Your task to perform on an android device: add a contact in the contacts app Image 0: 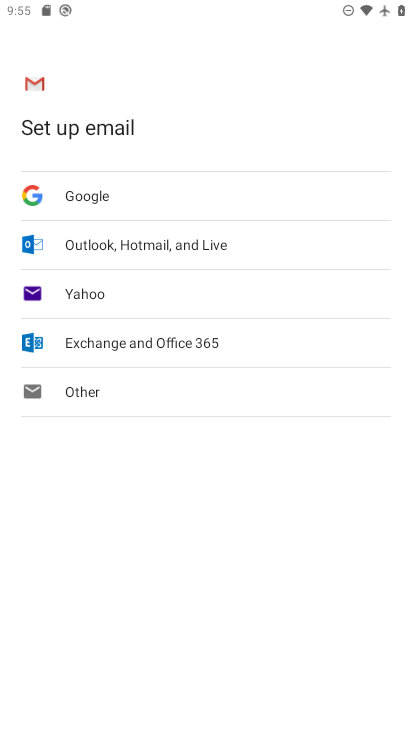
Step 0: press home button
Your task to perform on an android device: add a contact in the contacts app Image 1: 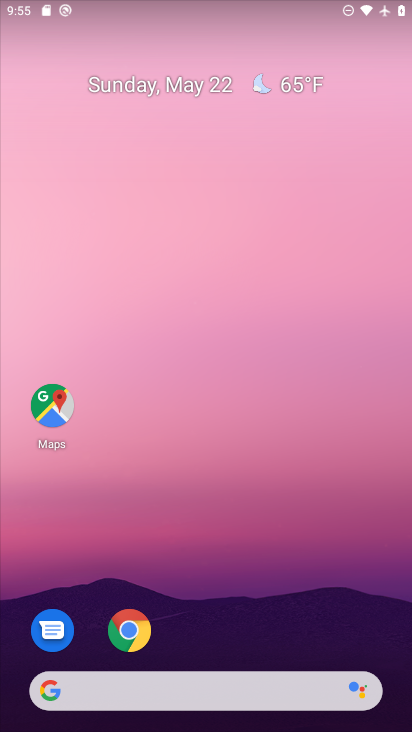
Step 1: drag from (167, 697) to (302, 289)
Your task to perform on an android device: add a contact in the contacts app Image 2: 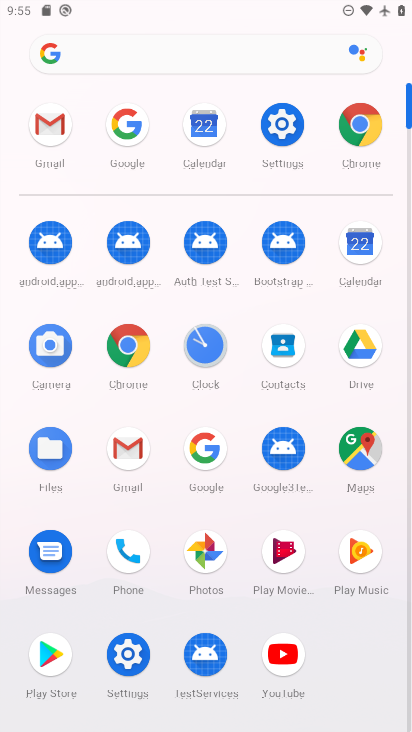
Step 2: click (285, 338)
Your task to perform on an android device: add a contact in the contacts app Image 3: 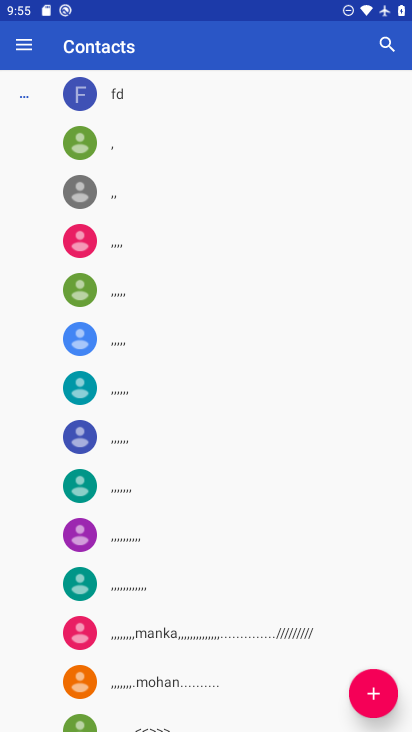
Step 3: click (375, 696)
Your task to perform on an android device: add a contact in the contacts app Image 4: 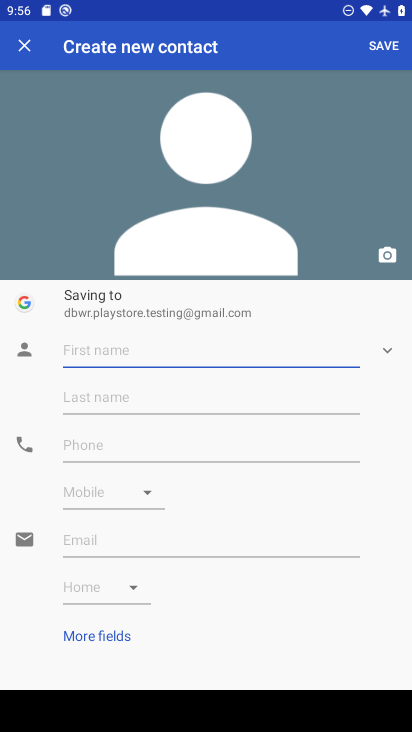
Step 4: type "ytghfds"
Your task to perform on an android device: add a contact in the contacts app Image 5: 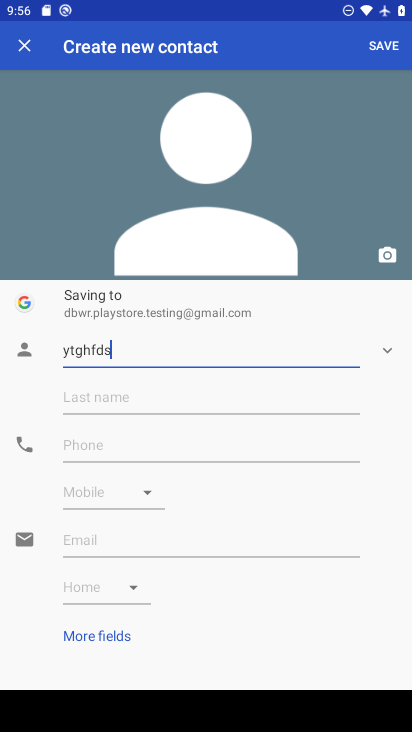
Step 5: click (145, 444)
Your task to perform on an android device: add a contact in the contacts app Image 6: 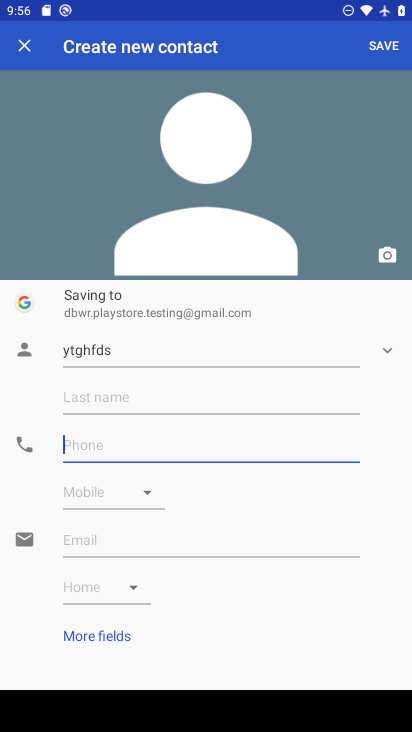
Step 6: type "5475346"
Your task to perform on an android device: add a contact in the contacts app Image 7: 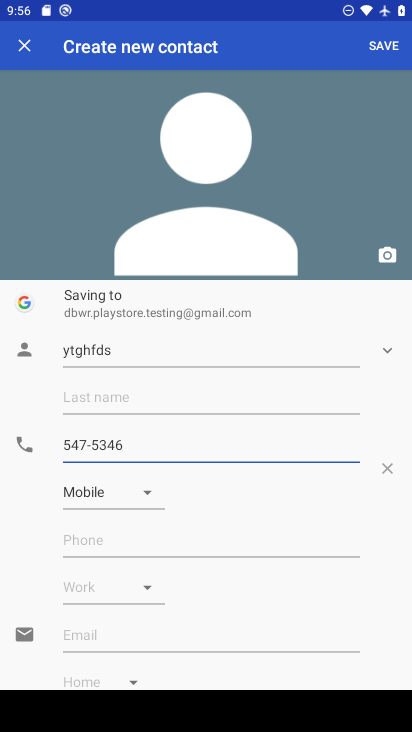
Step 7: click (386, 40)
Your task to perform on an android device: add a contact in the contacts app Image 8: 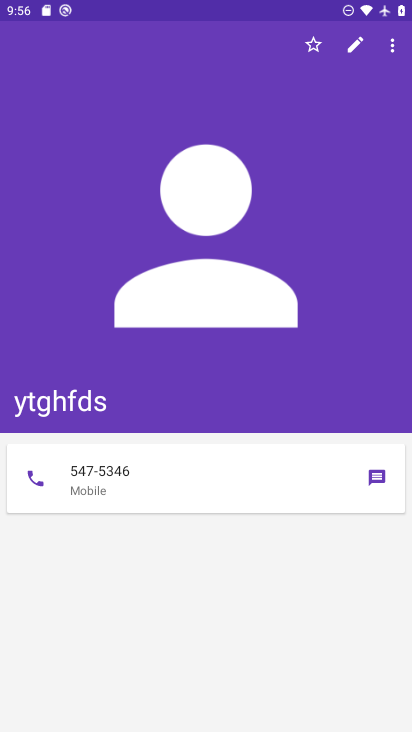
Step 8: task complete